Your task to perform on an android device: Go to notification settings Image 0: 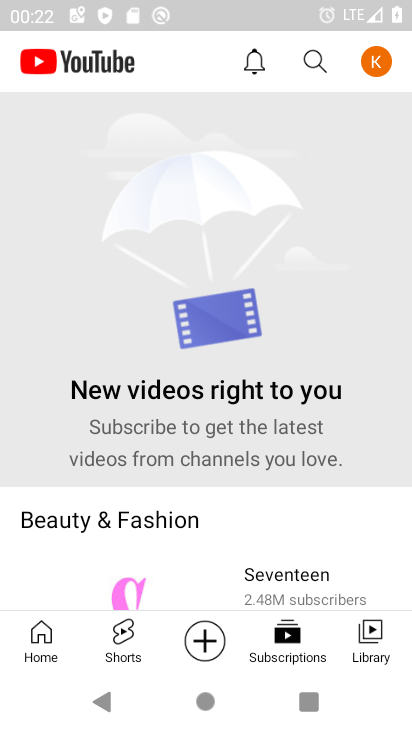
Step 0: press home button
Your task to perform on an android device: Go to notification settings Image 1: 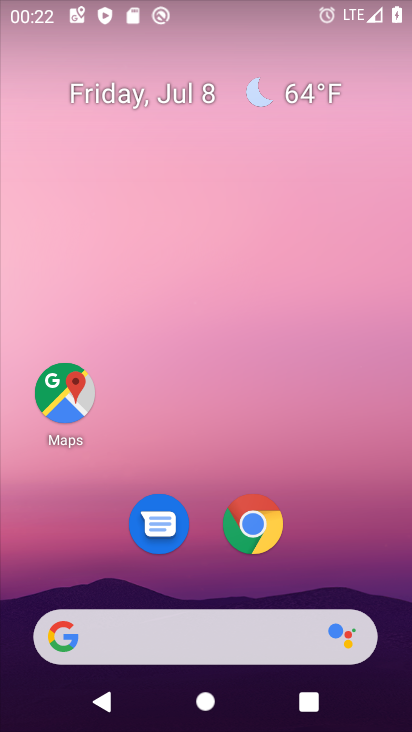
Step 1: drag from (321, 539) to (330, 26)
Your task to perform on an android device: Go to notification settings Image 2: 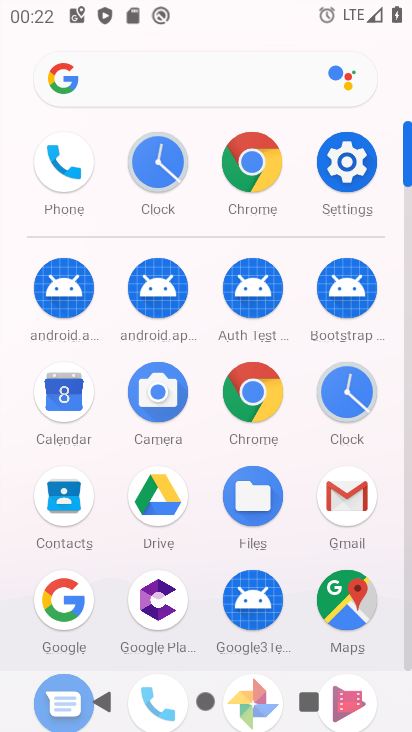
Step 2: click (341, 163)
Your task to perform on an android device: Go to notification settings Image 3: 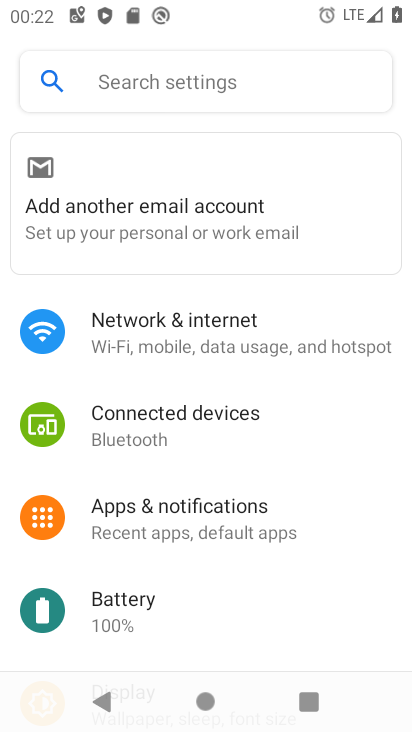
Step 3: click (211, 502)
Your task to perform on an android device: Go to notification settings Image 4: 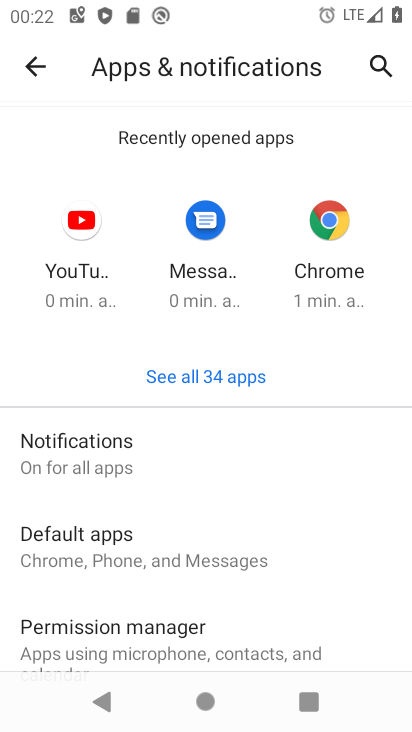
Step 4: click (121, 452)
Your task to perform on an android device: Go to notification settings Image 5: 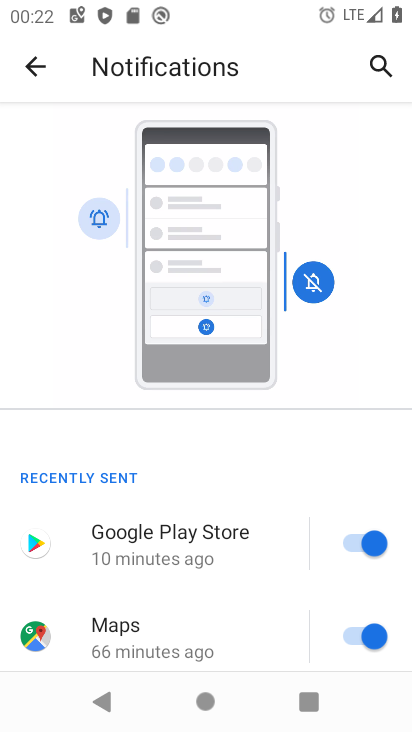
Step 5: task complete